Your task to perform on an android device: manage bookmarks in the chrome app Image 0: 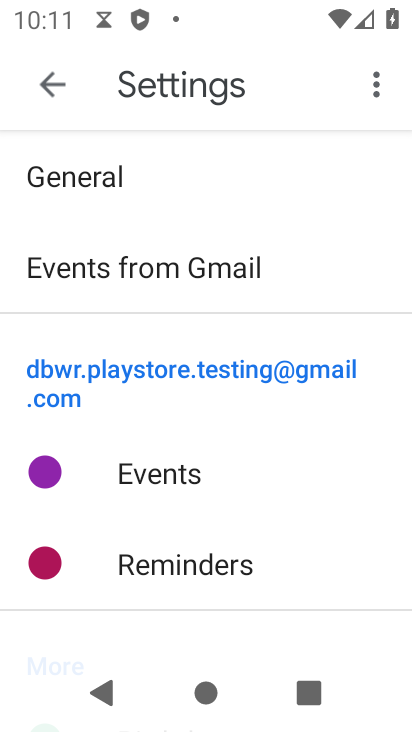
Step 0: press home button
Your task to perform on an android device: manage bookmarks in the chrome app Image 1: 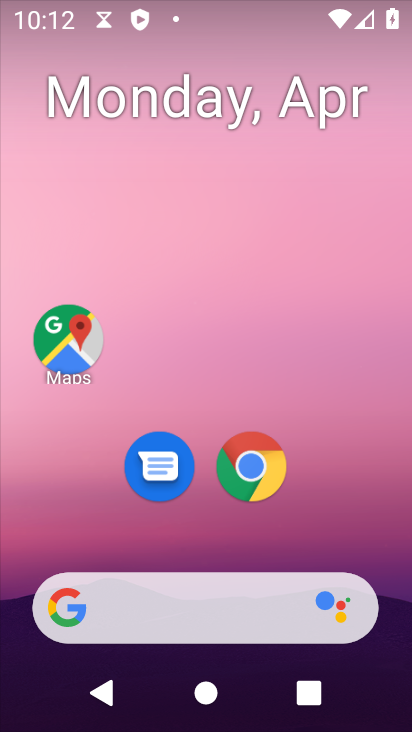
Step 1: click (250, 468)
Your task to perform on an android device: manage bookmarks in the chrome app Image 2: 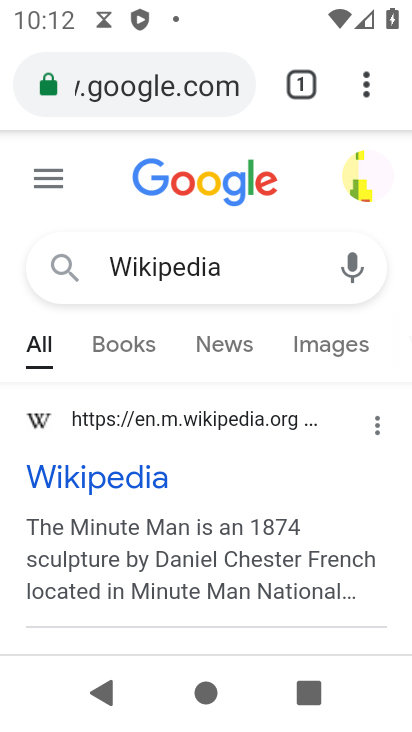
Step 2: click (370, 86)
Your task to perform on an android device: manage bookmarks in the chrome app Image 3: 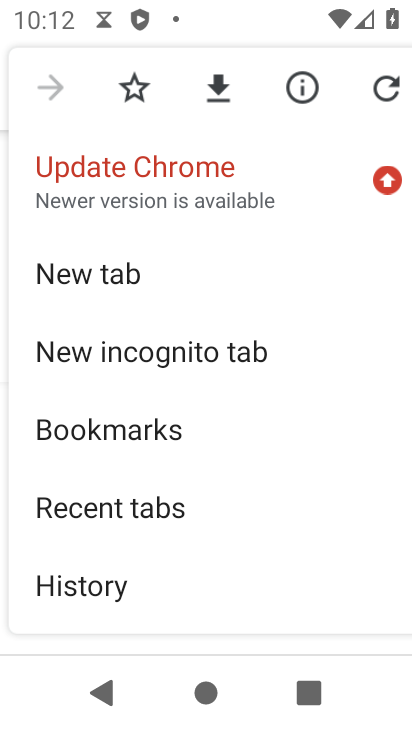
Step 3: drag from (204, 487) to (253, 313)
Your task to perform on an android device: manage bookmarks in the chrome app Image 4: 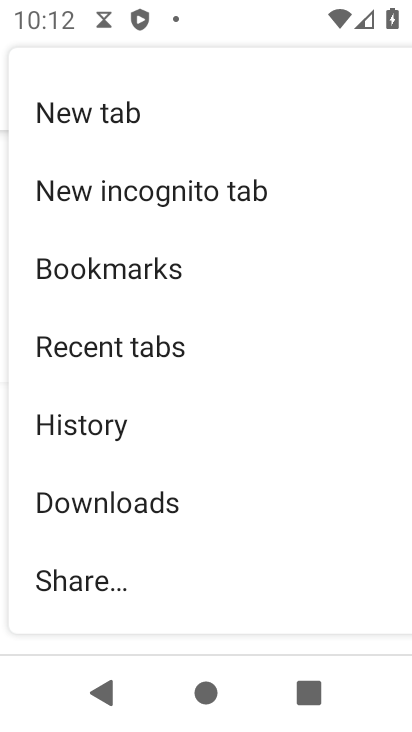
Step 4: drag from (195, 429) to (199, 278)
Your task to perform on an android device: manage bookmarks in the chrome app Image 5: 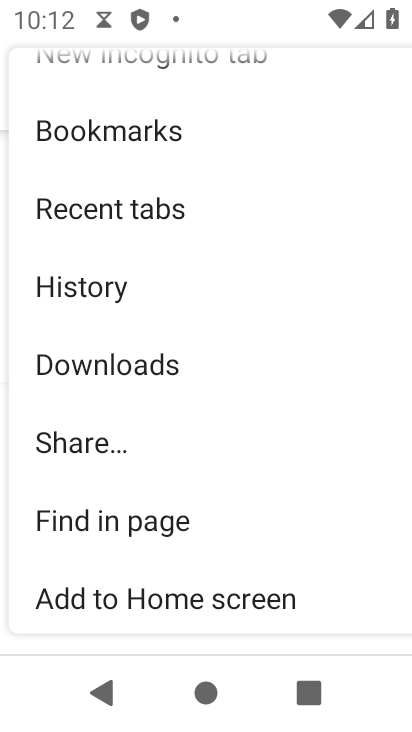
Step 5: drag from (173, 428) to (203, 270)
Your task to perform on an android device: manage bookmarks in the chrome app Image 6: 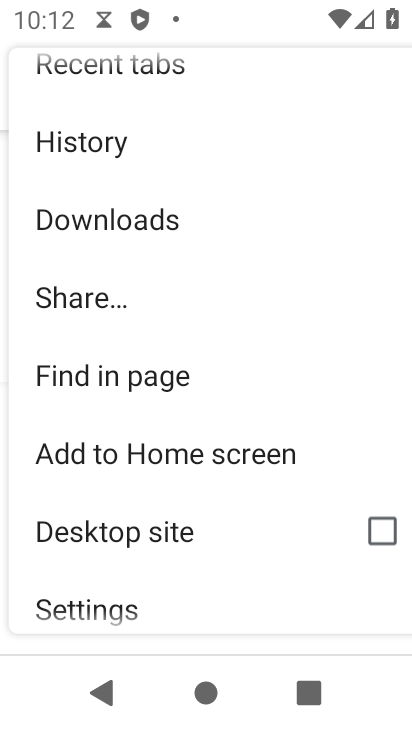
Step 6: drag from (207, 413) to (220, 306)
Your task to perform on an android device: manage bookmarks in the chrome app Image 7: 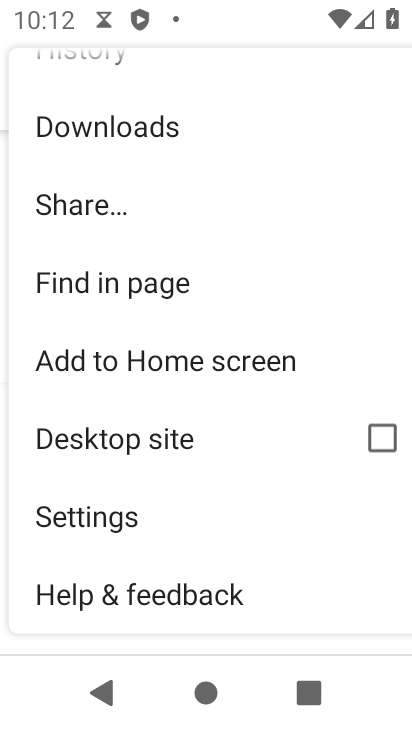
Step 7: drag from (200, 229) to (210, 454)
Your task to perform on an android device: manage bookmarks in the chrome app Image 8: 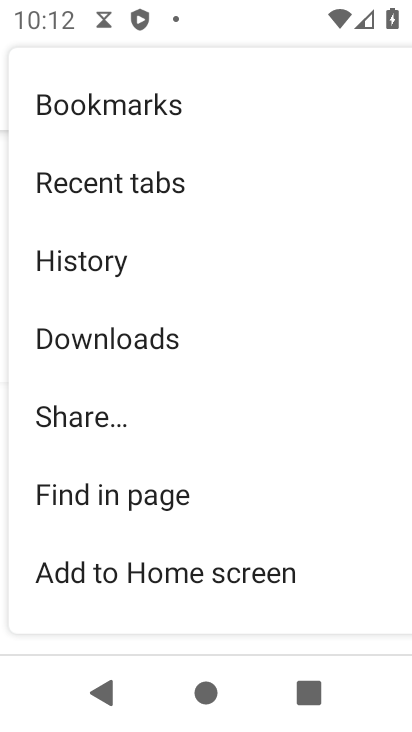
Step 8: click (136, 103)
Your task to perform on an android device: manage bookmarks in the chrome app Image 9: 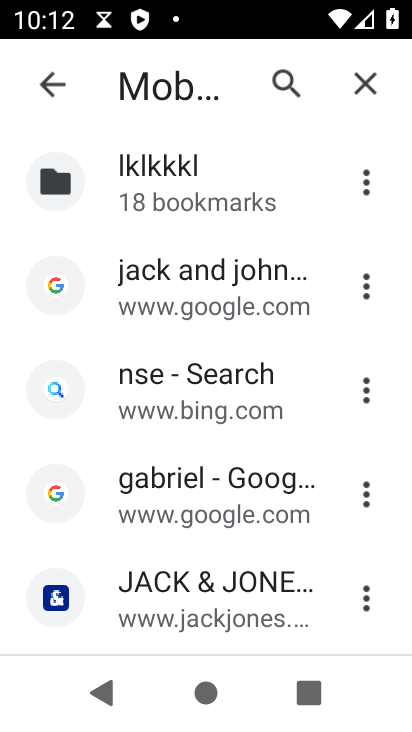
Step 9: click (368, 274)
Your task to perform on an android device: manage bookmarks in the chrome app Image 10: 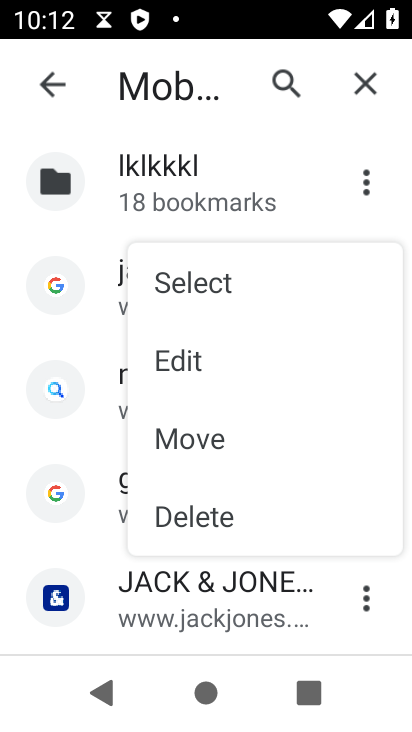
Step 10: click (182, 353)
Your task to perform on an android device: manage bookmarks in the chrome app Image 11: 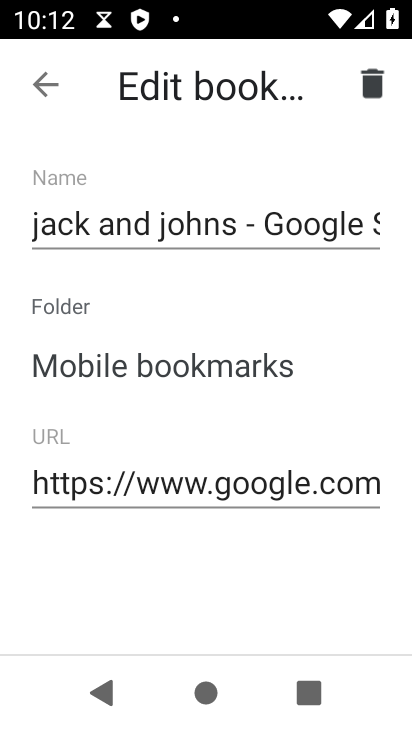
Step 11: click (256, 224)
Your task to perform on an android device: manage bookmarks in the chrome app Image 12: 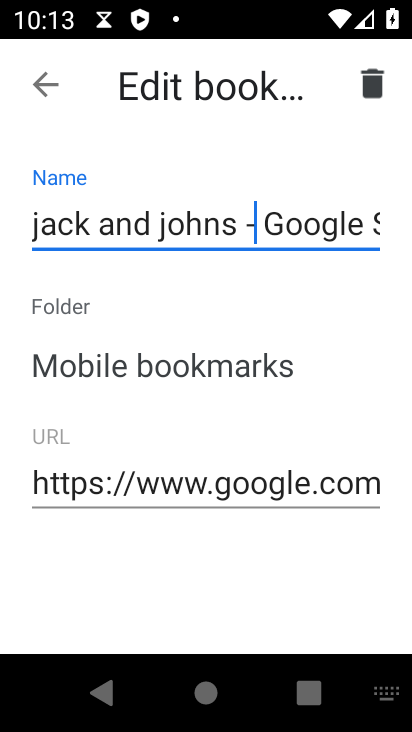
Step 12: click (277, 370)
Your task to perform on an android device: manage bookmarks in the chrome app Image 13: 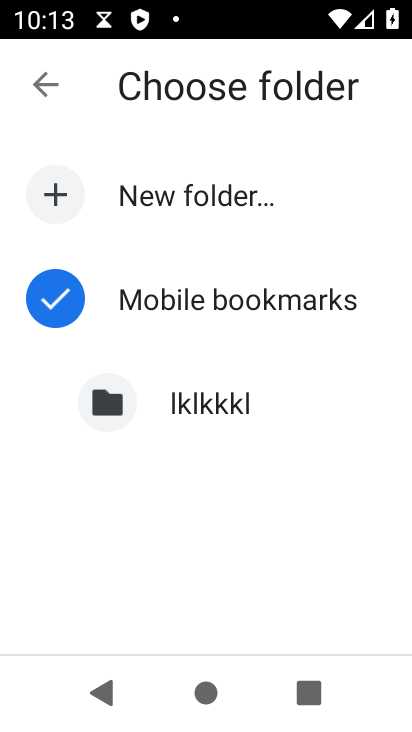
Step 13: press back button
Your task to perform on an android device: manage bookmarks in the chrome app Image 14: 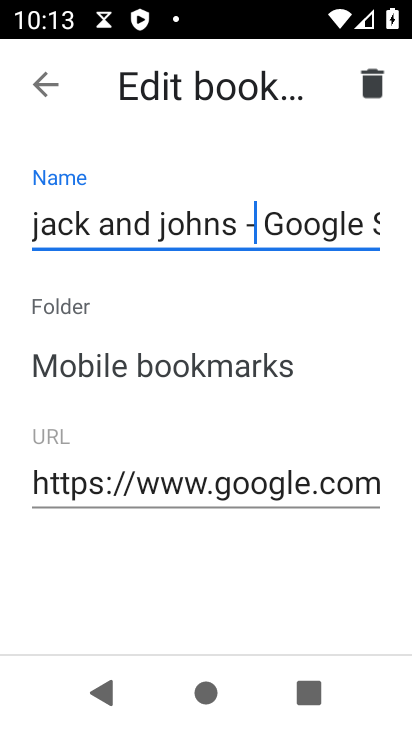
Step 14: click (382, 79)
Your task to perform on an android device: manage bookmarks in the chrome app Image 15: 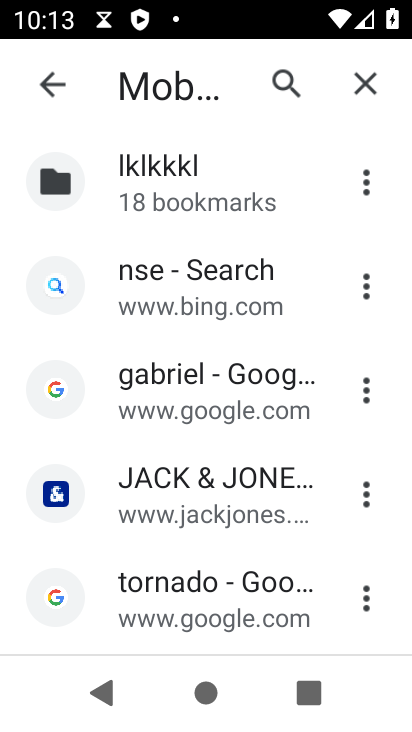
Step 15: task complete